Your task to perform on an android device: choose inbox layout in the gmail app Image 0: 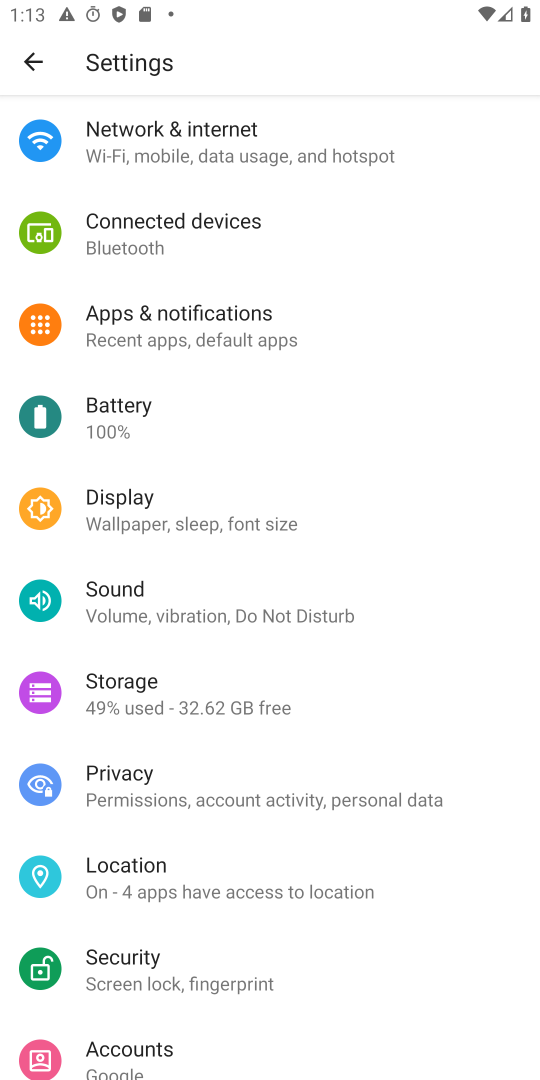
Step 0: press home button
Your task to perform on an android device: choose inbox layout in the gmail app Image 1: 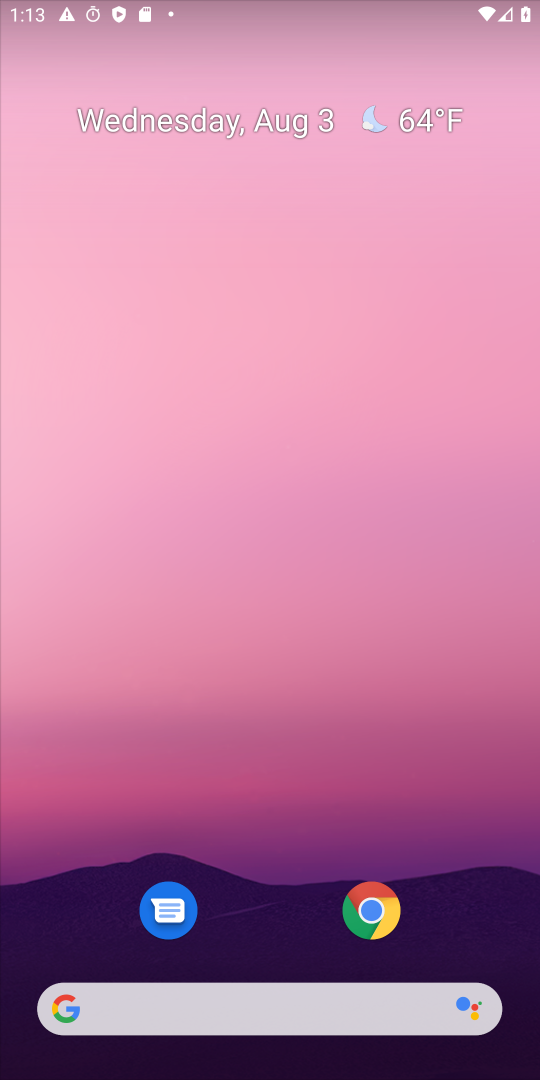
Step 1: drag from (334, 1004) to (417, 8)
Your task to perform on an android device: choose inbox layout in the gmail app Image 2: 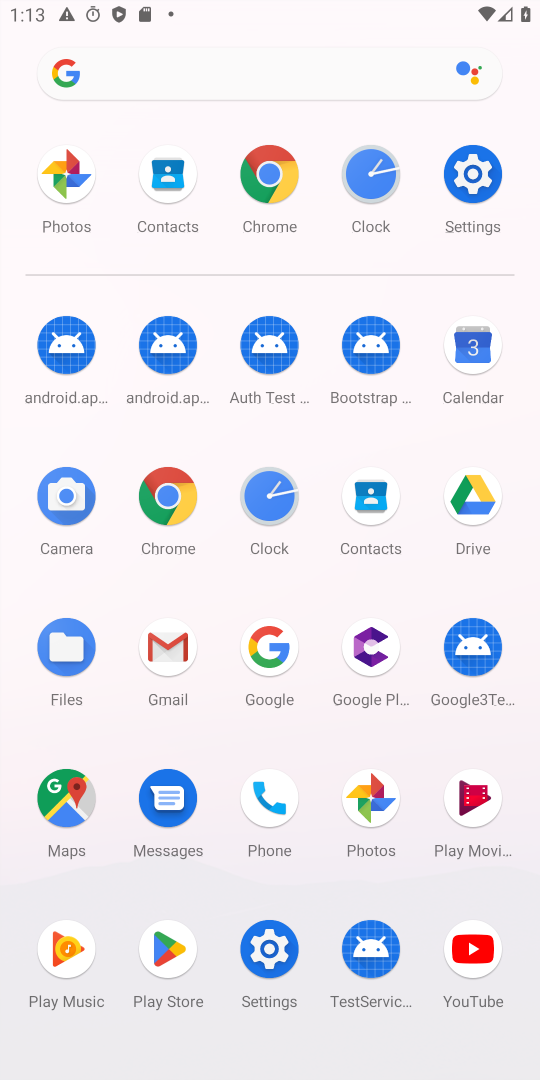
Step 2: click (165, 632)
Your task to perform on an android device: choose inbox layout in the gmail app Image 3: 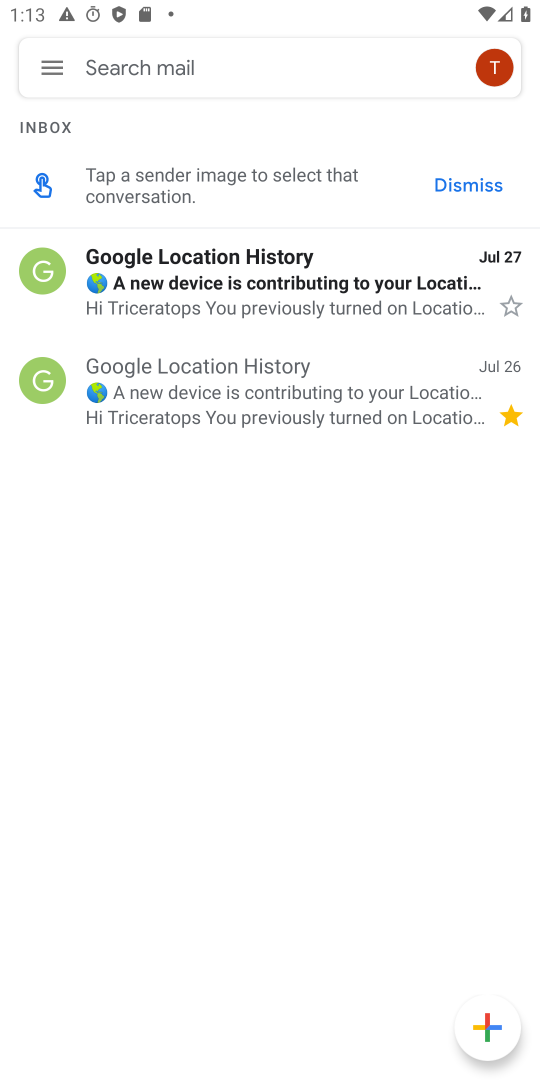
Step 3: click (53, 60)
Your task to perform on an android device: choose inbox layout in the gmail app Image 4: 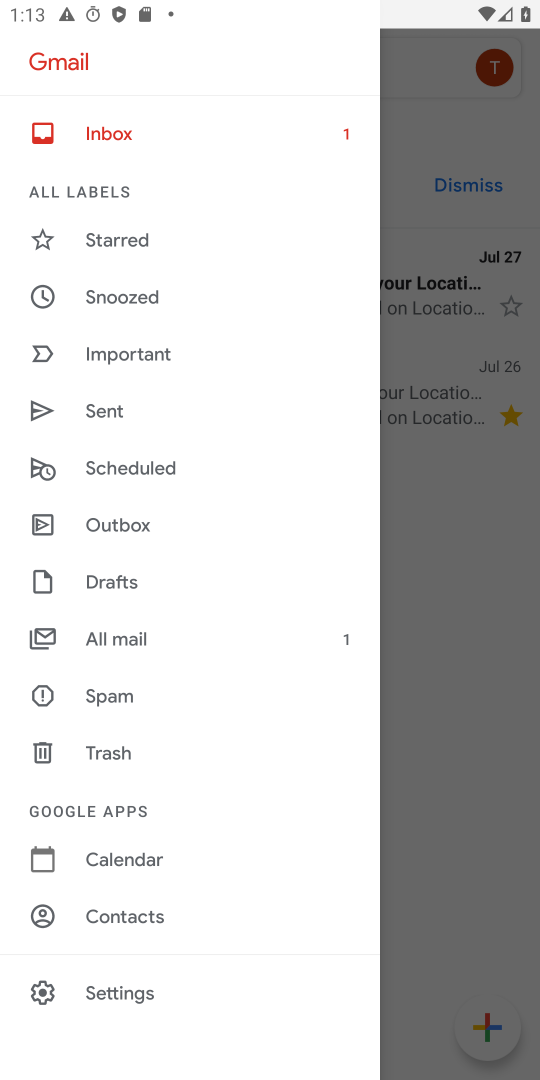
Step 4: click (137, 988)
Your task to perform on an android device: choose inbox layout in the gmail app Image 5: 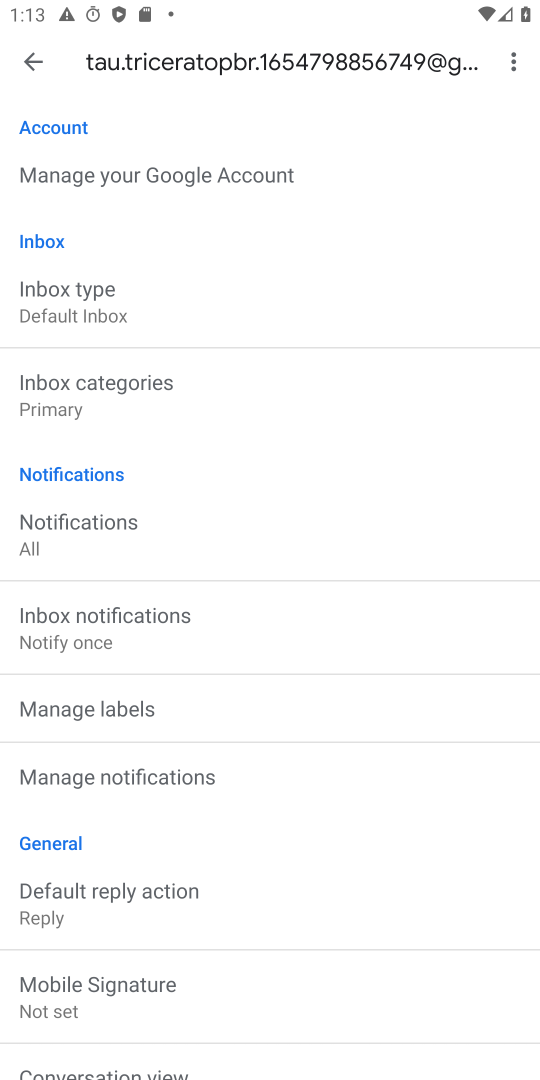
Step 5: click (111, 297)
Your task to perform on an android device: choose inbox layout in the gmail app Image 6: 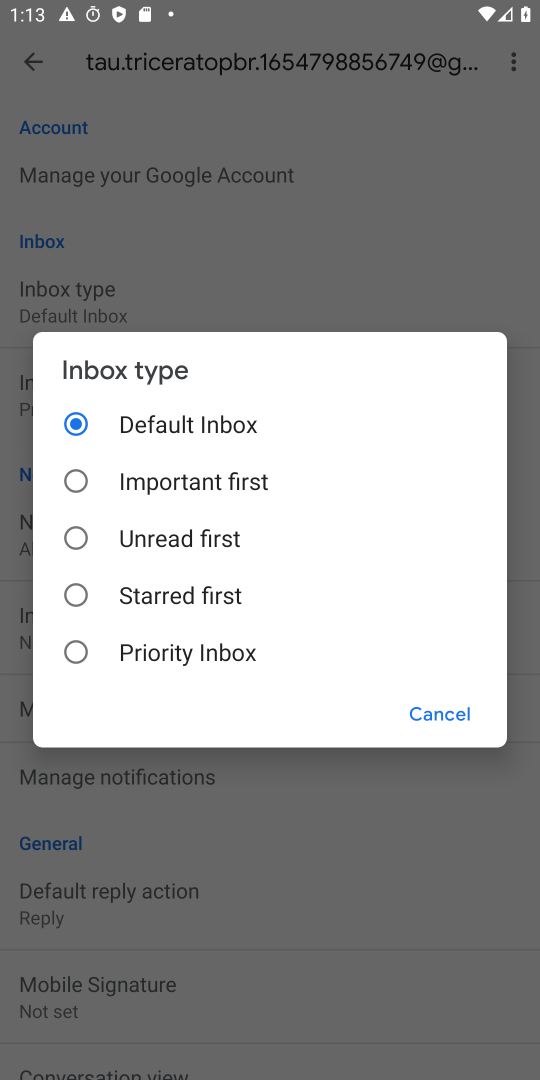
Step 6: click (75, 649)
Your task to perform on an android device: choose inbox layout in the gmail app Image 7: 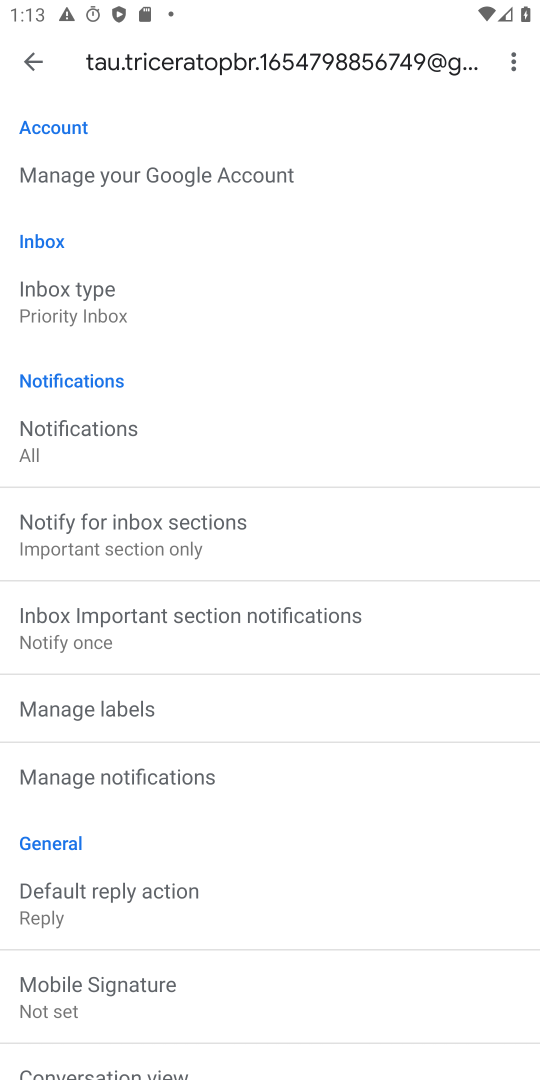
Step 7: task complete